Your task to perform on an android device: Open settings on Google Maps Image 0: 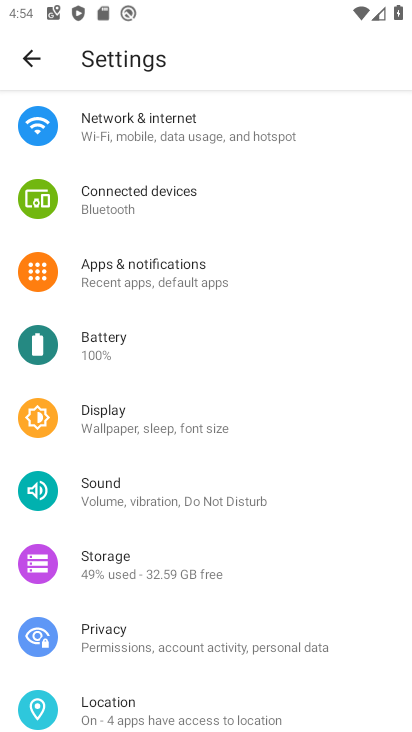
Step 0: press home button
Your task to perform on an android device: Open settings on Google Maps Image 1: 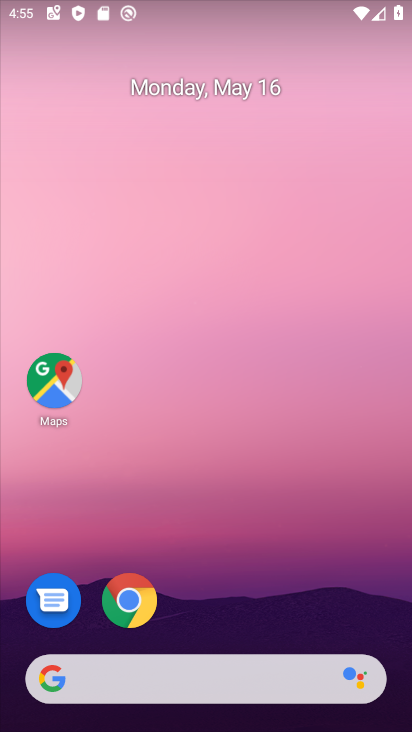
Step 1: drag from (208, 636) to (149, 65)
Your task to perform on an android device: Open settings on Google Maps Image 2: 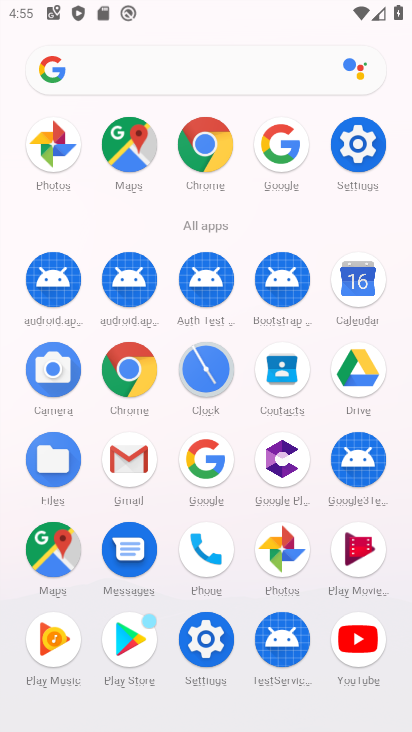
Step 2: click (60, 544)
Your task to perform on an android device: Open settings on Google Maps Image 3: 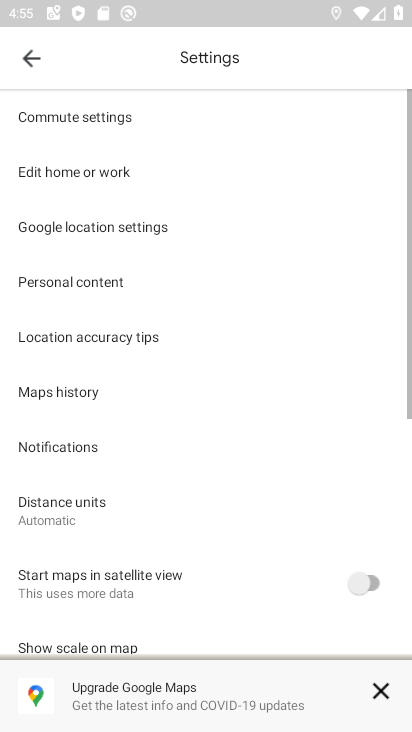
Step 3: task complete